Your task to perform on an android device: turn vacation reply on in the gmail app Image 0: 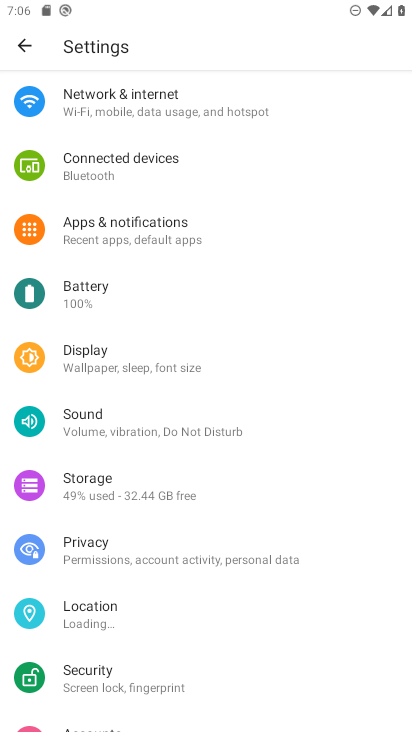
Step 0: press home button
Your task to perform on an android device: turn vacation reply on in the gmail app Image 1: 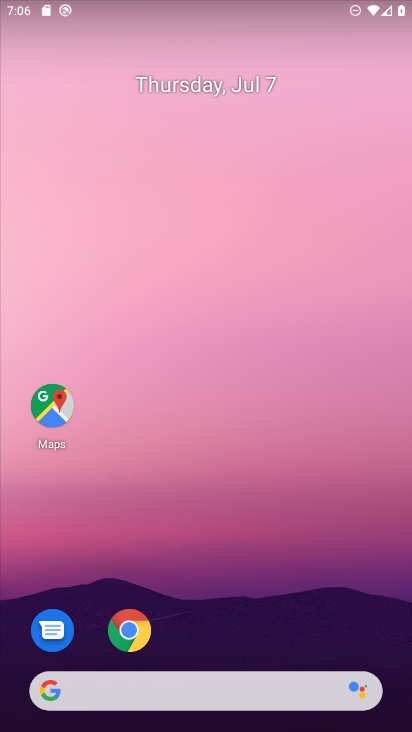
Step 1: drag from (217, 573) to (127, 87)
Your task to perform on an android device: turn vacation reply on in the gmail app Image 2: 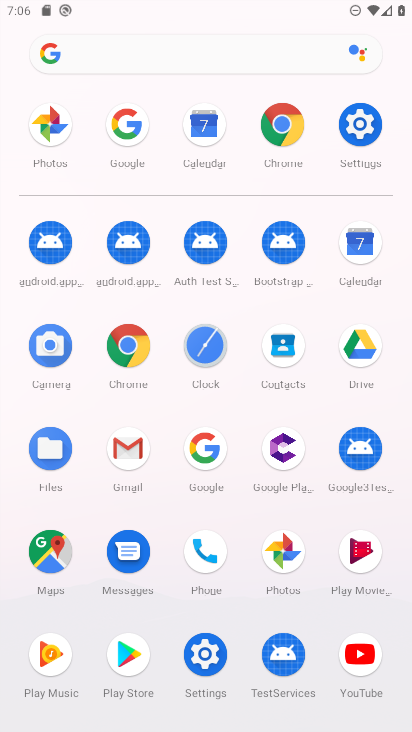
Step 2: click (121, 449)
Your task to perform on an android device: turn vacation reply on in the gmail app Image 3: 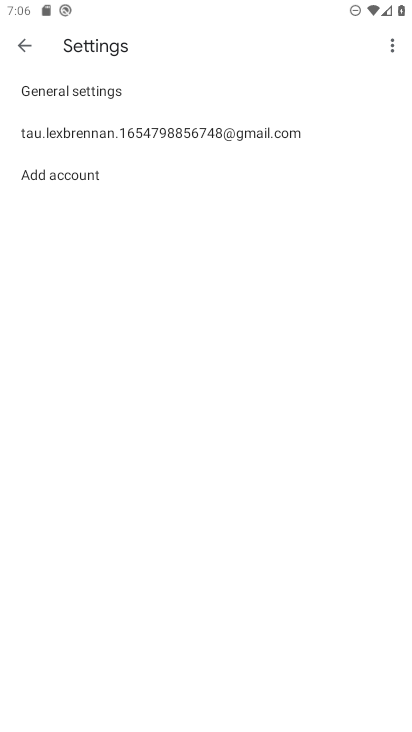
Step 3: click (82, 87)
Your task to perform on an android device: turn vacation reply on in the gmail app Image 4: 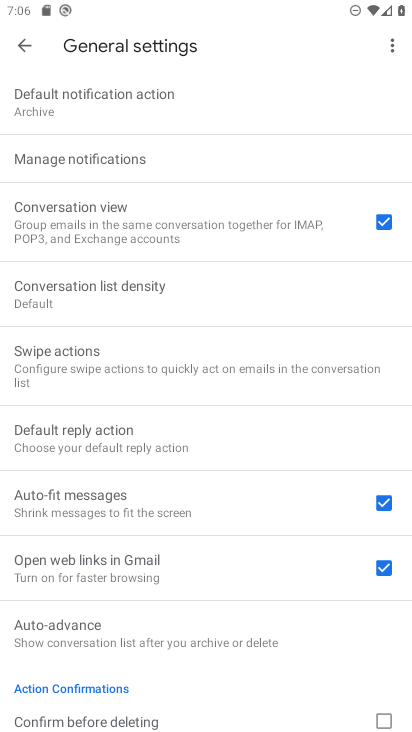
Step 4: drag from (206, 624) to (209, 440)
Your task to perform on an android device: turn vacation reply on in the gmail app Image 5: 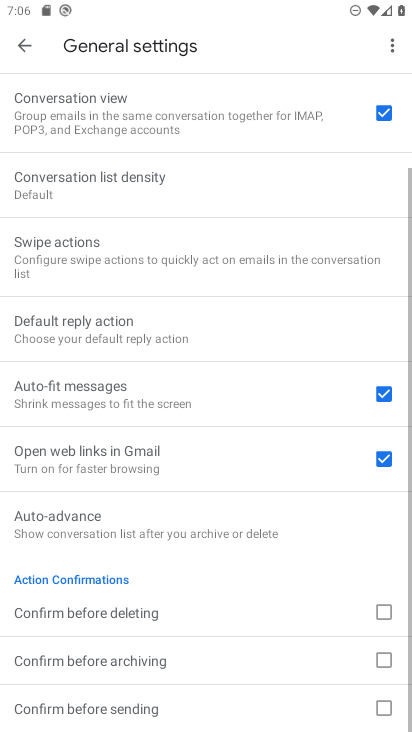
Step 5: drag from (235, 625) to (230, 315)
Your task to perform on an android device: turn vacation reply on in the gmail app Image 6: 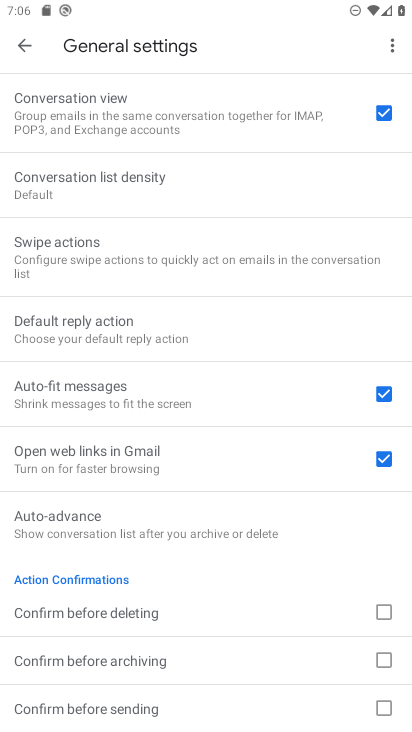
Step 6: click (25, 44)
Your task to perform on an android device: turn vacation reply on in the gmail app Image 7: 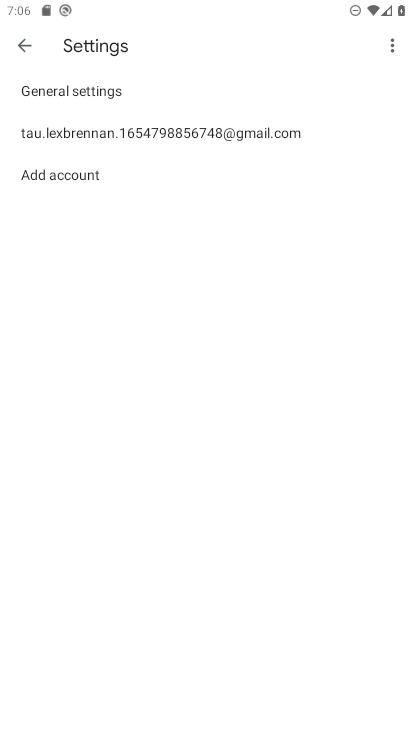
Step 7: click (106, 129)
Your task to perform on an android device: turn vacation reply on in the gmail app Image 8: 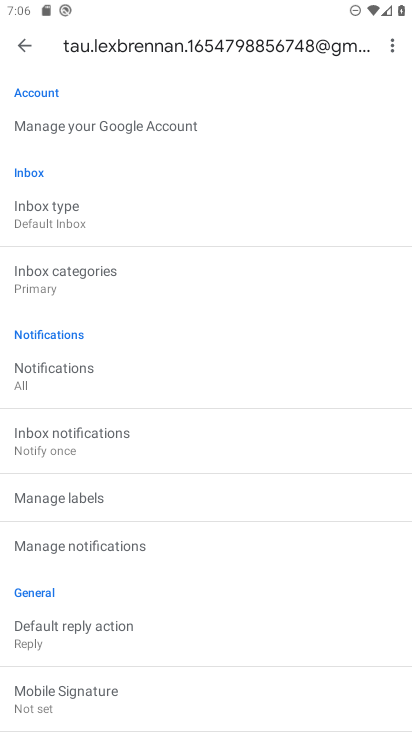
Step 8: drag from (233, 606) to (189, 108)
Your task to perform on an android device: turn vacation reply on in the gmail app Image 9: 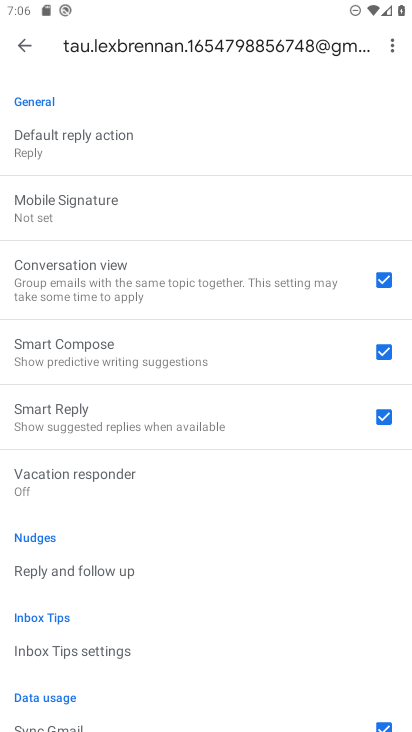
Step 9: click (53, 473)
Your task to perform on an android device: turn vacation reply on in the gmail app Image 10: 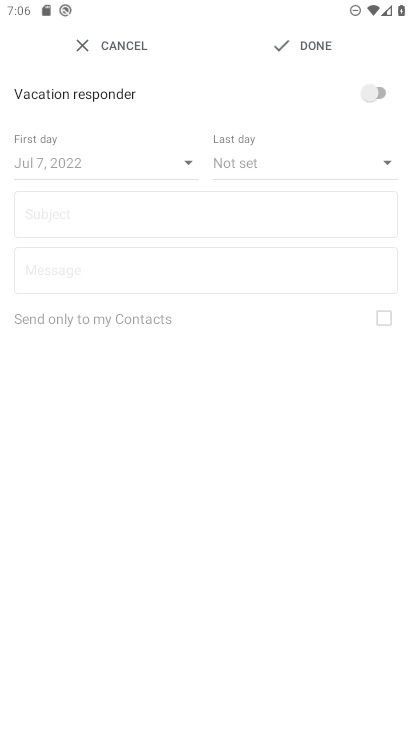
Step 10: click (373, 87)
Your task to perform on an android device: turn vacation reply on in the gmail app Image 11: 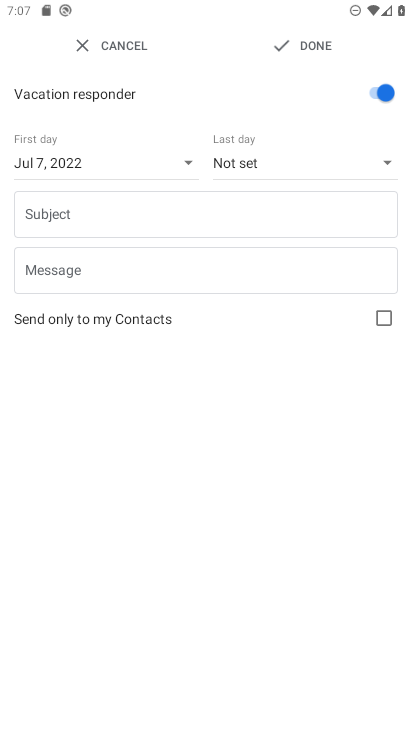
Step 11: task complete